Your task to perform on an android device: open a new tab in the chrome app Image 0: 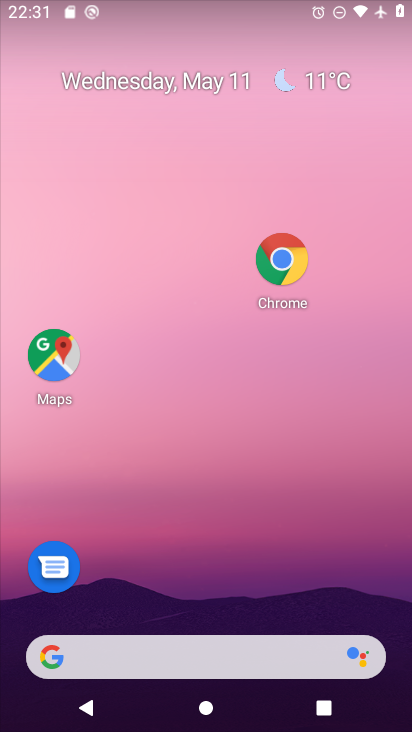
Step 0: click (278, 268)
Your task to perform on an android device: open a new tab in the chrome app Image 1: 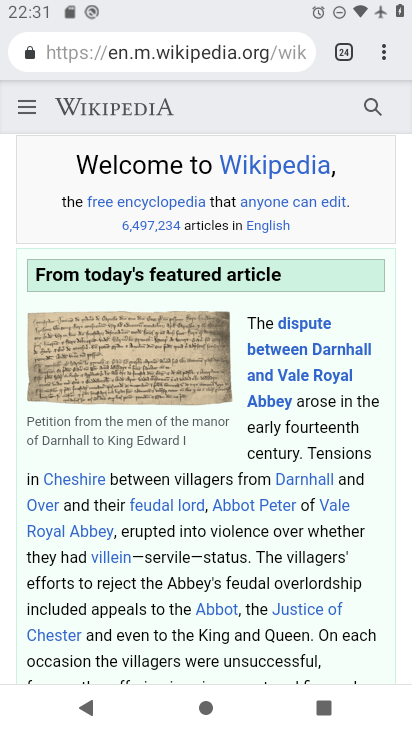
Step 1: task complete